Your task to perform on an android device: turn off priority inbox in the gmail app Image 0: 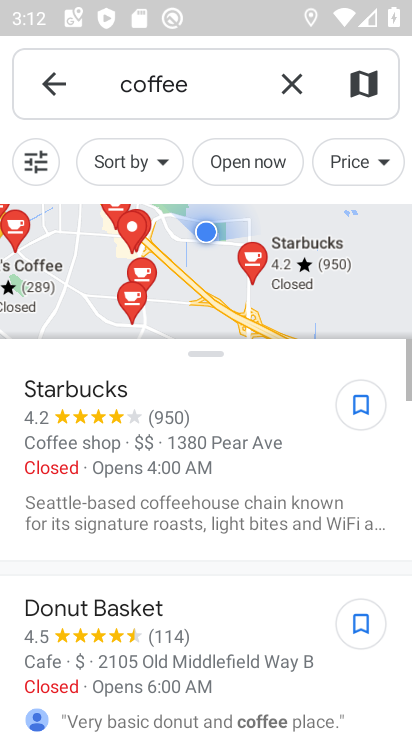
Step 0: press home button
Your task to perform on an android device: turn off priority inbox in the gmail app Image 1: 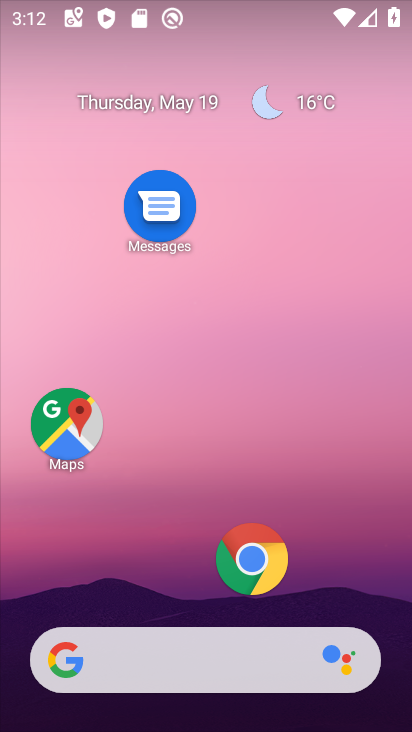
Step 1: drag from (213, 616) to (219, 262)
Your task to perform on an android device: turn off priority inbox in the gmail app Image 2: 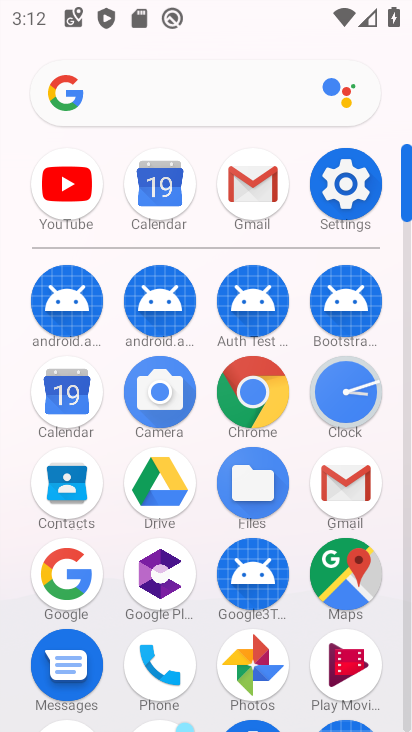
Step 2: click (242, 202)
Your task to perform on an android device: turn off priority inbox in the gmail app Image 3: 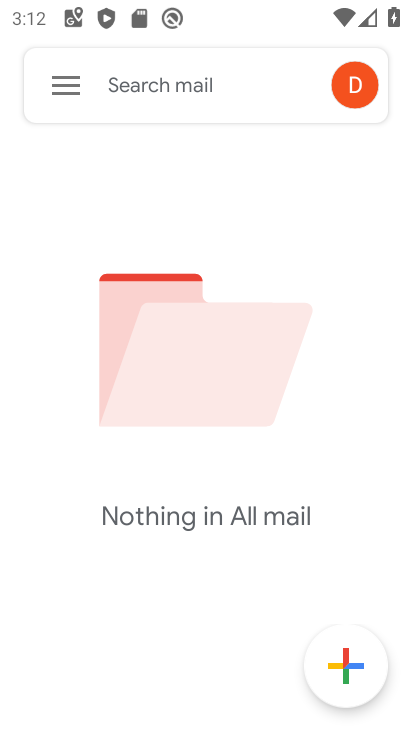
Step 3: click (48, 87)
Your task to perform on an android device: turn off priority inbox in the gmail app Image 4: 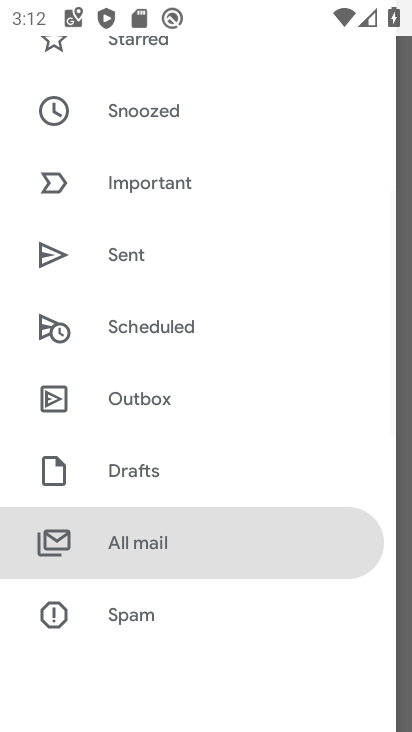
Step 4: drag from (179, 583) to (187, 233)
Your task to perform on an android device: turn off priority inbox in the gmail app Image 5: 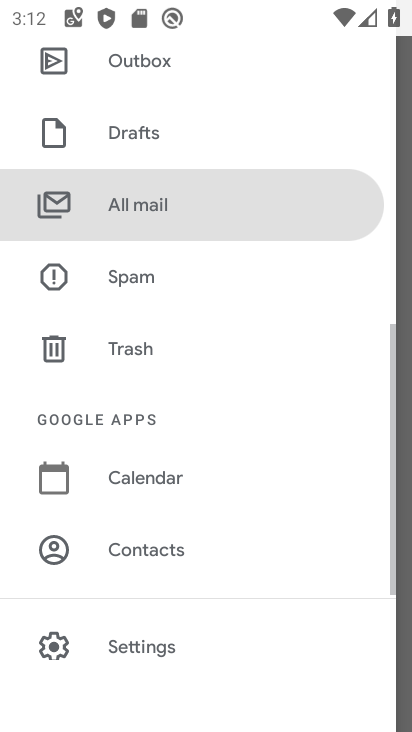
Step 5: drag from (189, 557) to (207, 284)
Your task to perform on an android device: turn off priority inbox in the gmail app Image 6: 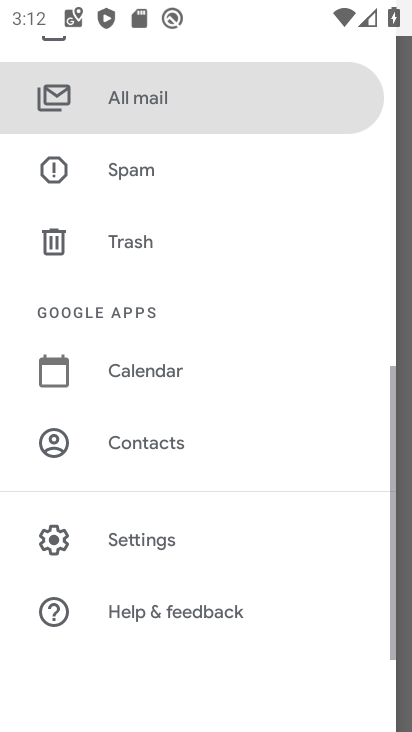
Step 6: click (173, 538)
Your task to perform on an android device: turn off priority inbox in the gmail app Image 7: 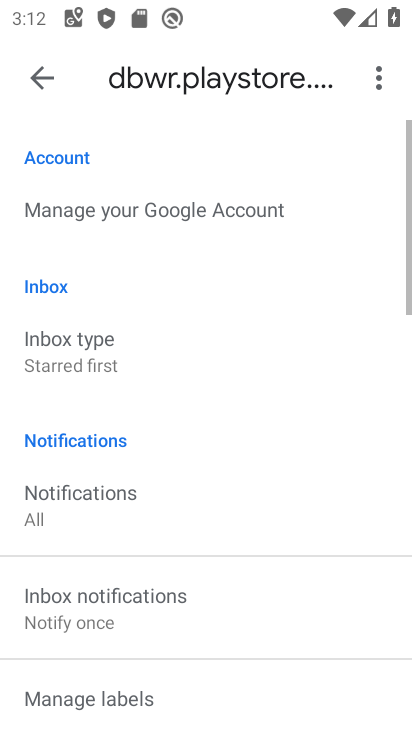
Step 7: drag from (219, 557) to (225, 353)
Your task to perform on an android device: turn off priority inbox in the gmail app Image 8: 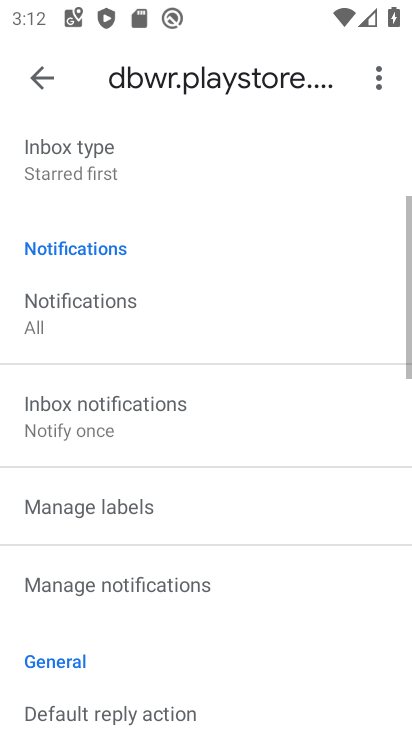
Step 8: drag from (222, 568) to (239, 308)
Your task to perform on an android device: turn off priority inbox in the gmail app Image 9: 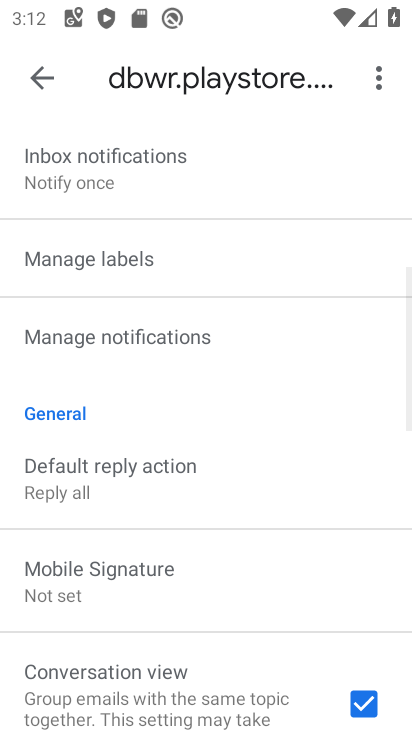
Step 9: drag from (228, 275) to (225, 550)
Your task to perform on an android device: turn off priority inbox in the gmail app Image 10: 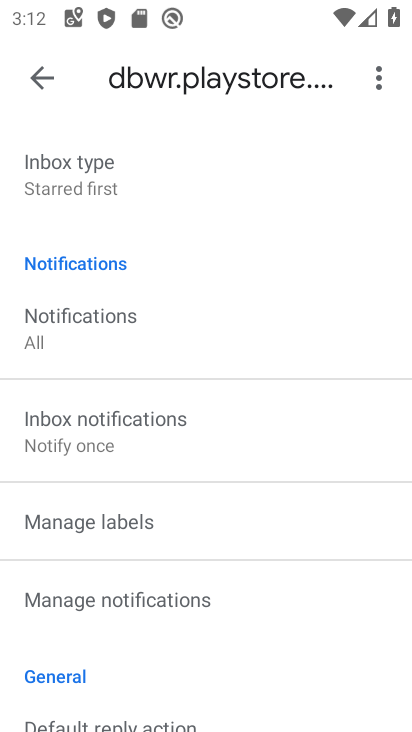
Step 10: drag from (202, 218) to (202, 361)
Your task to perform on an android device: turn off priority inbox in the gmail app Image 11: 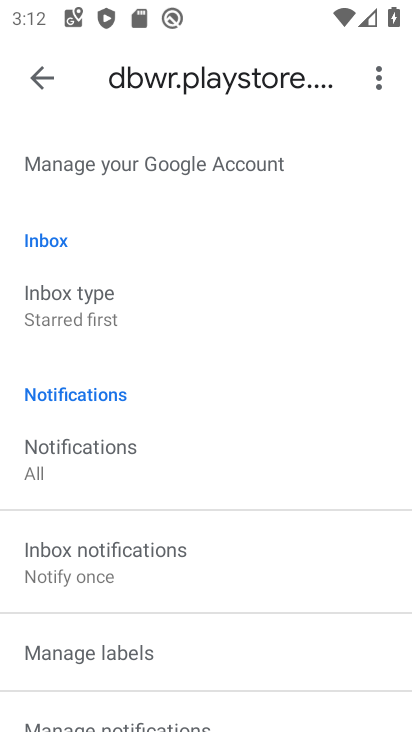
Step 11: click (148, 312)
Your task to perform on an android device: turn off priority inbox in the gmail app Image 12: 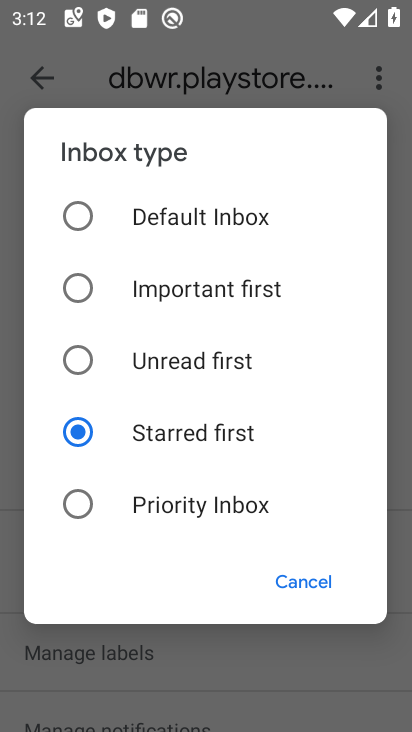
Step 12: click (171, 233)
Your task to perform on an android device: turn off priority inbox in the gmail app Image 13: 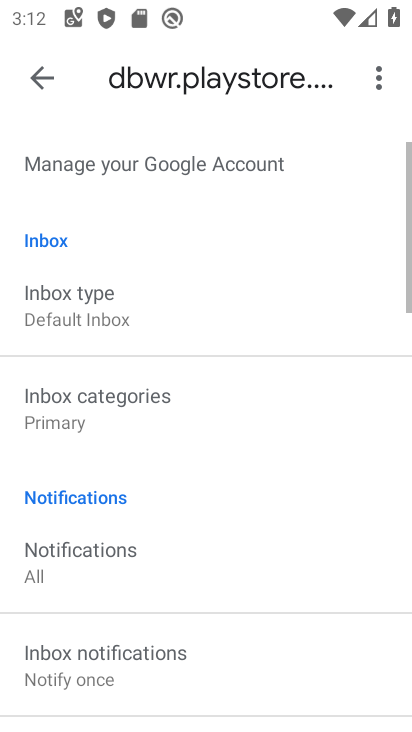
Step 13: task complete